Your task to perform on an android device: toggle notifications settings in the gmail app Image 0: 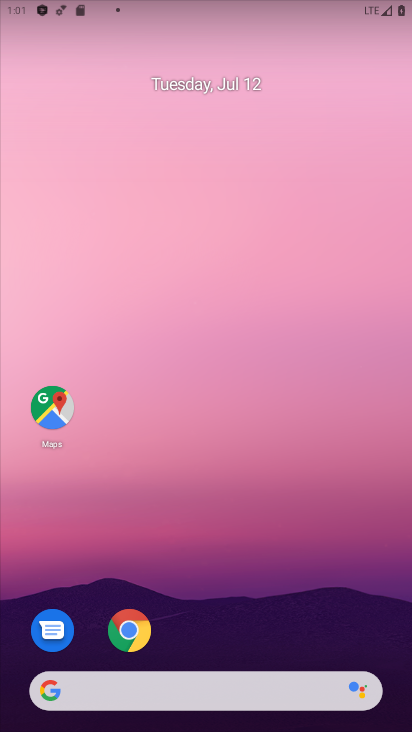
Step 0: drag from (225, 579) to (178, 170)
Your task to perform on an android device: toggle notifications settings in the gmail app Image 1: 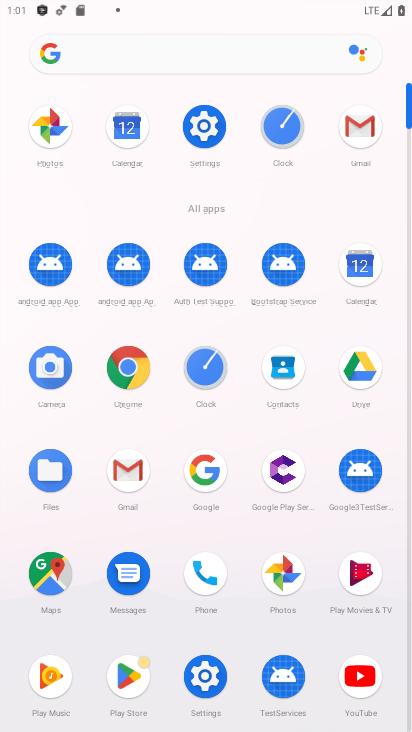
Step 1: click (121, 477)
Your task to perform on an android device: toggle notifications settings in the gmail app Image 2: 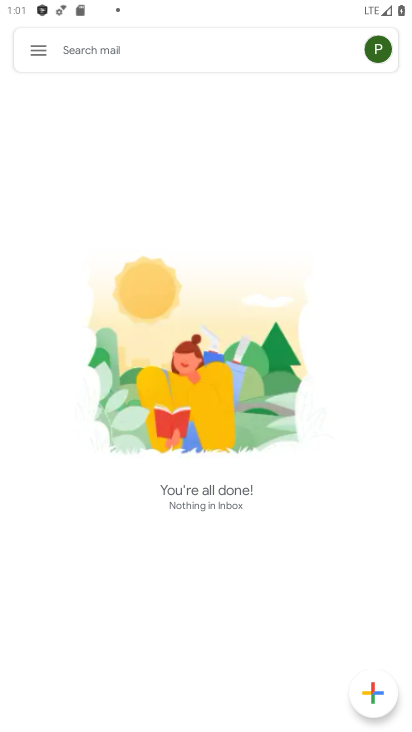
Step 2: click (38, 60)
Your task to perform on an android device: toggle notifications settings in the gmail app Image 3: 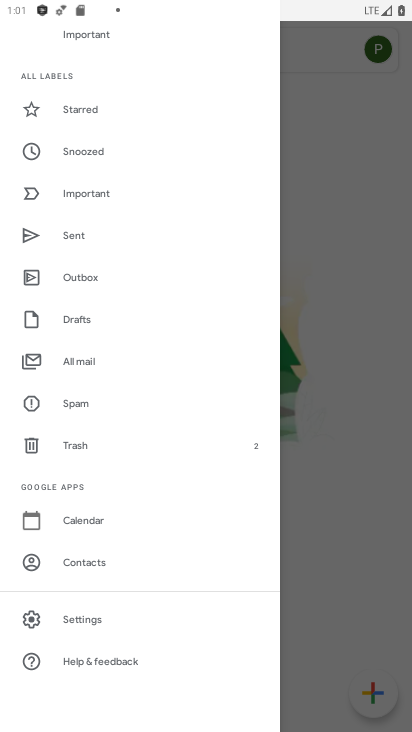
Step 3: click (86, 618)
Your task to perform on an android device: toggle notifications settings in the gmail app Image 4: 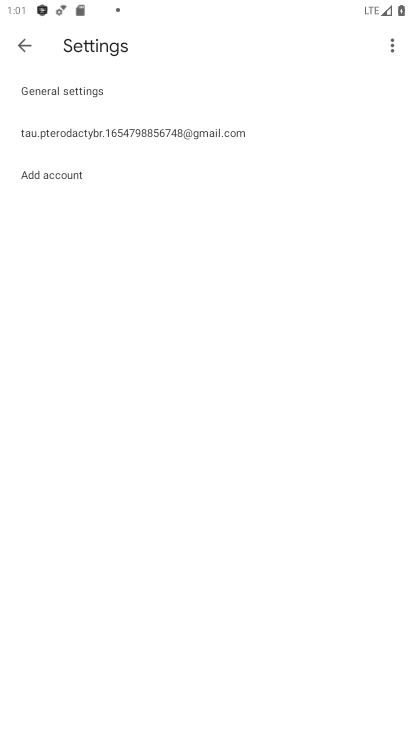
Step 4: click (62, 89)
Your task to perform on an android device: toggle notifications settings in the gmail app Image 5: 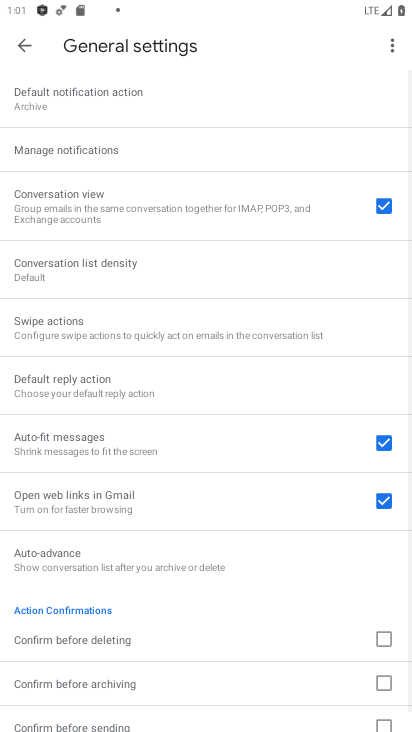
Step 5: click (121, 148)
Your task to perform on an android device: toggle notifications settings in the gmail app Image 6: 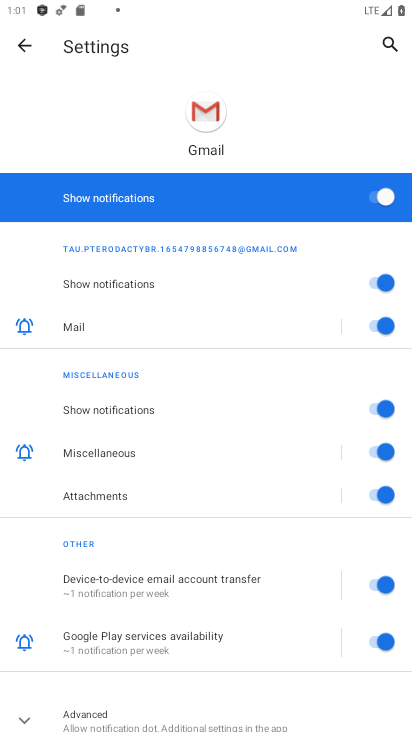
Step 6: click (390, 202)
Your task to perform on an android device: toggle notifications settings in the gmail app Image 7: 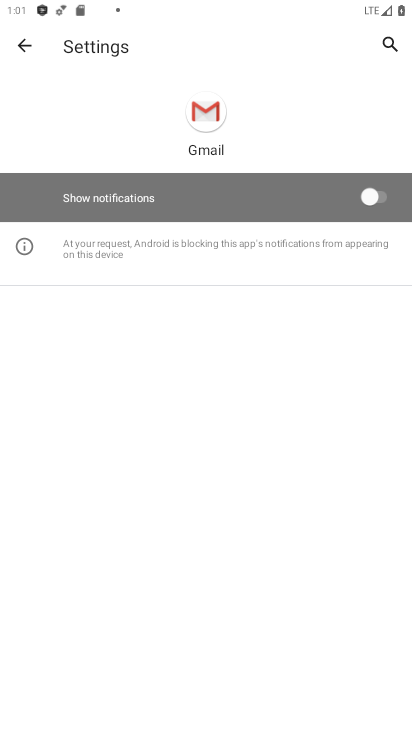
Step 7: task complete